Your task to perform on an android device: open app "eBay: The shopping marketplace" Image 0: 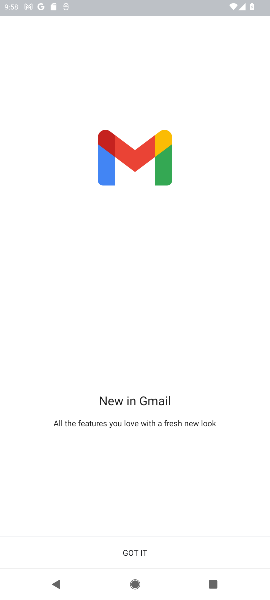
Step 0: click (167, 544)
Your task to perform on an android device: open app "eBay: The shopping marketplace" Image 1: 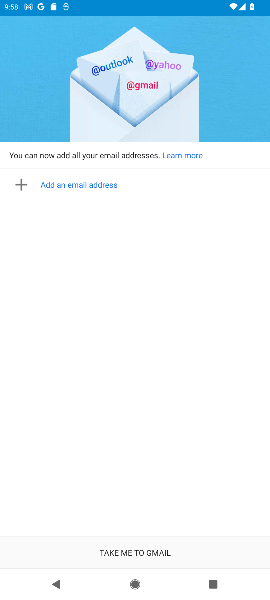
Step 1: press home button
Your task to perform on an android device: open app "eBay: The shopping marketplace" Image 2: 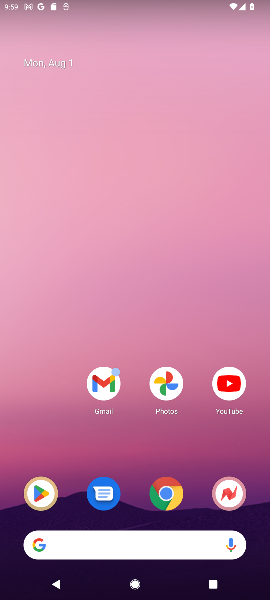
Step 2: click (35, 499)
Your task to perform on an android device: open app "eBay: The shopping marketplace" Image 3: 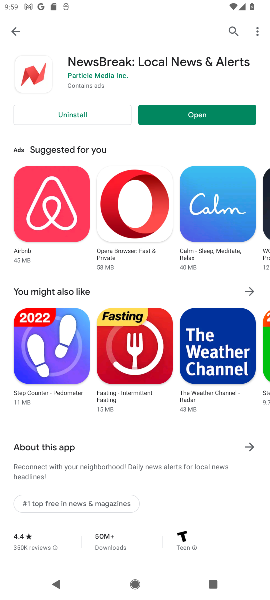
Step 3: task complete